Your task to perform on an android device: change the clock style Image 0: 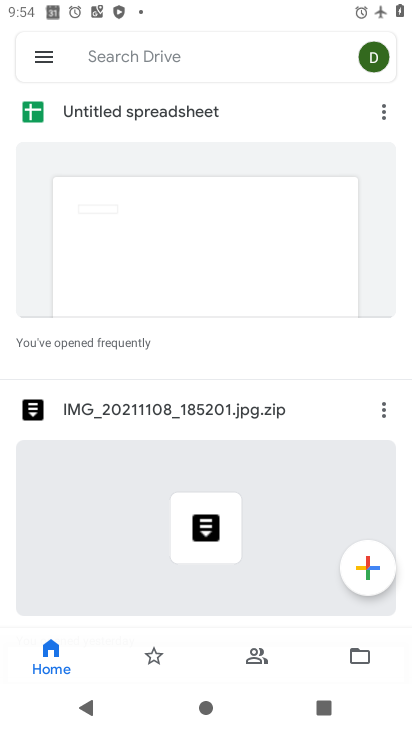
Step 0: press home button
Your task to perform on an android device: change the clock style Image 1: 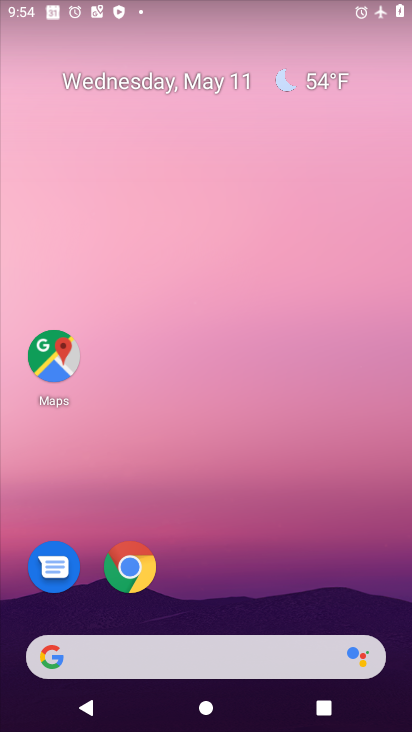
Step 1: drag from (220, 578) to (296, 0)
Your task to perform on an android device: change the clock style Image 2: 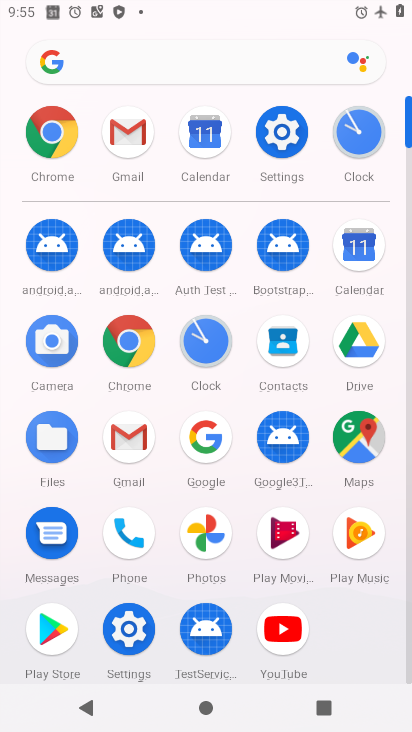
Step 2: click (199, 365)
Your task to perform on an android device: change the clock style Image 3: 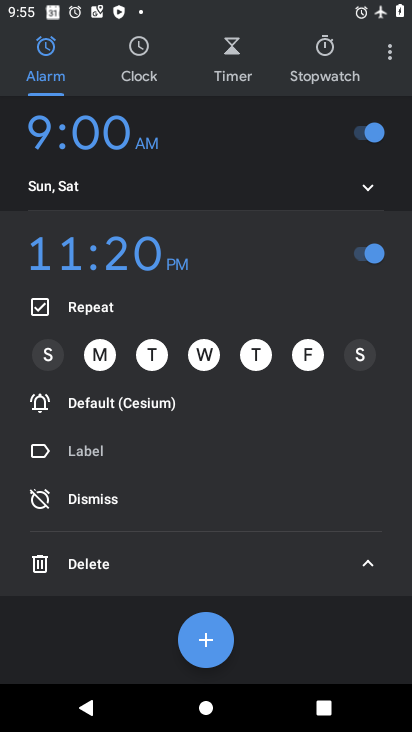
Step 3: click (395, 41)
Your task to perform on an android device: change the clock style Image 4: 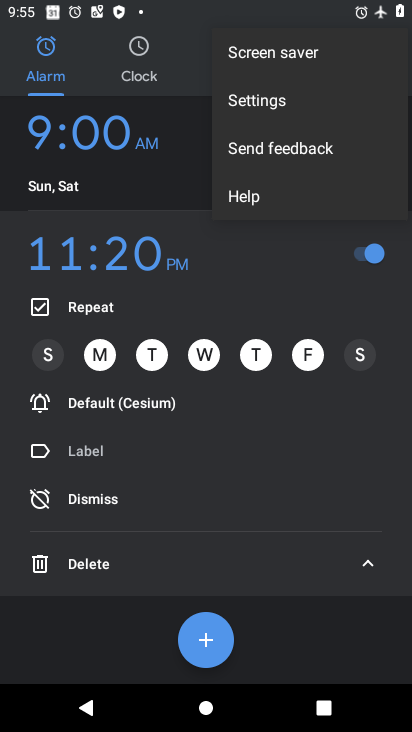
Step 4: click (248, 102)
Your task to perform on an android device: change the clock style Image 5: 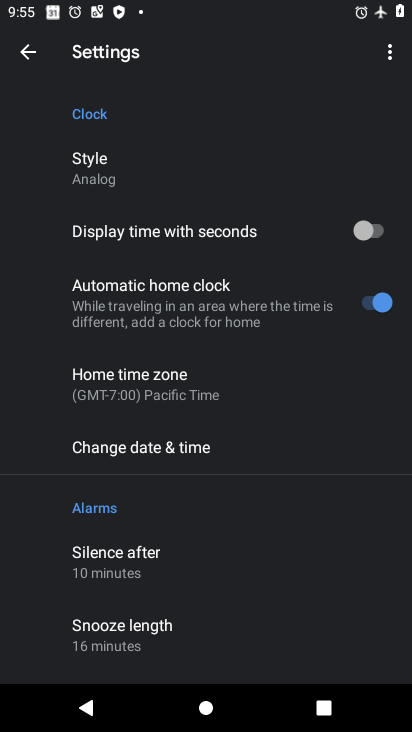
Step 5: click (133, 190)
Your task to perform on an android device: change the clock style Image 6: 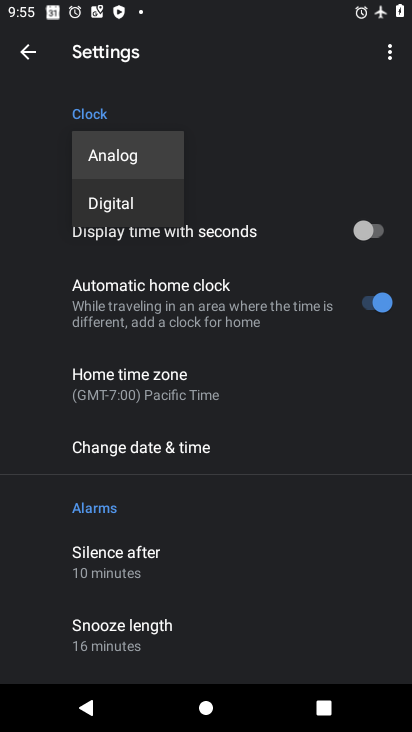
Step 6: click (134, 202)
Your task to perform on an android device: change the clock style Image 7: 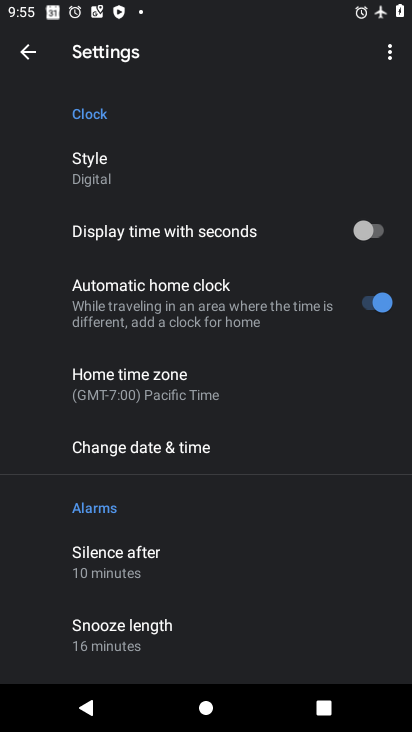
Step 7: task complete